Your task to perform on an android device: check battery use Image 0: 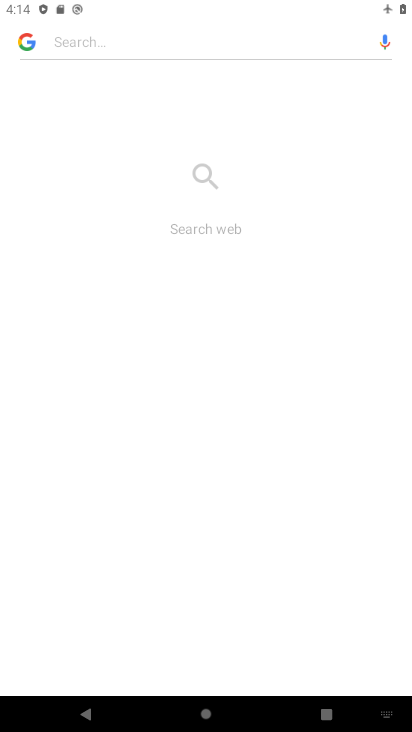
Step 0: press home button
Your task to perform on an android device: check battery use Image 1: 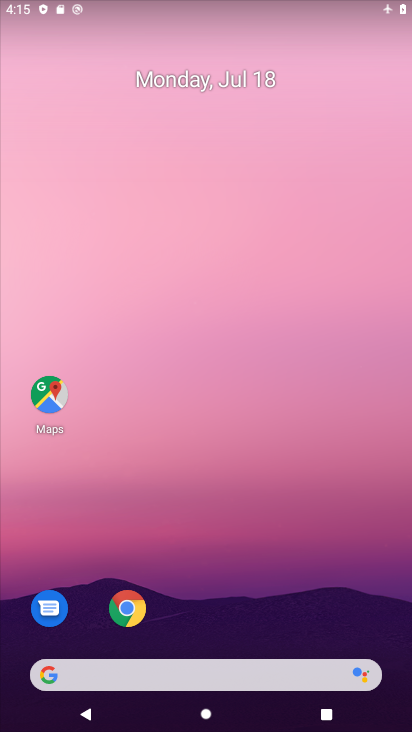
Step 1: drag from (294, 610) to (232, 37)
Your task to perform on an android device: check battery use Image 2: 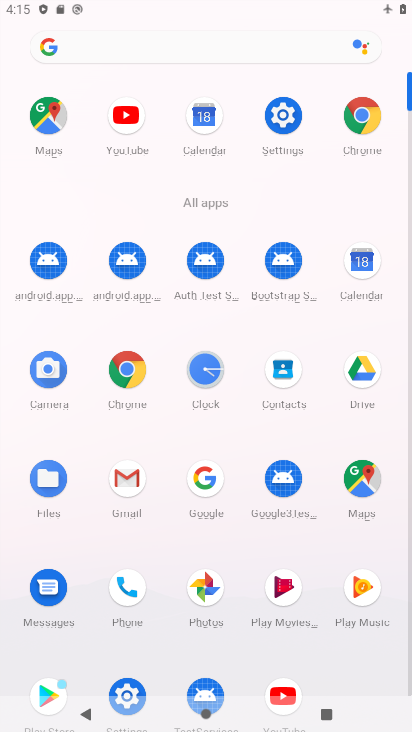
Step 2: click (299, 113)
Your task to perform on an android device: check battery use Image 3: 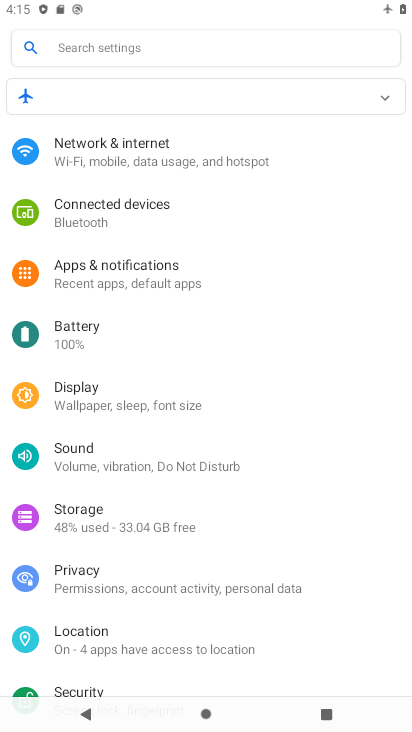
Step 3: click (87, 325)
Your task to perform on an android device: check battery use Image 4: 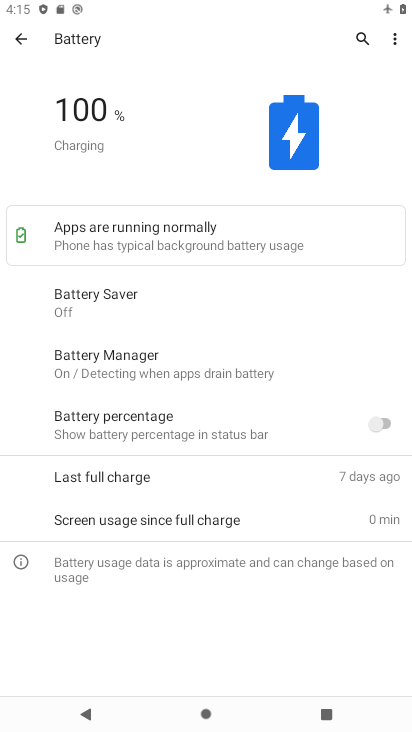
Step 4: click (399, 40)
Your task to perform on an android device: check battery use Image 5: 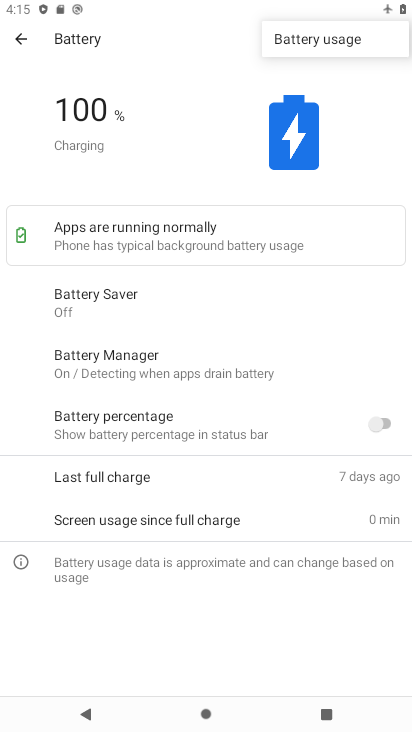
Step 5: click (321, 42)
Your task to perform on an android device: check battery use Image 6: 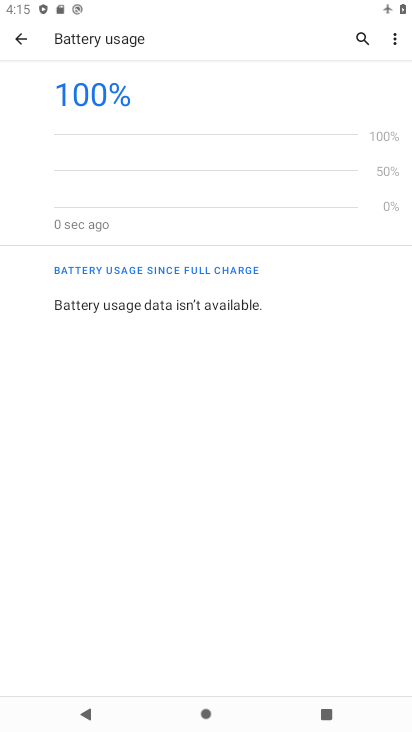
Step 6: task complete